Your task to perform on an android device: Search for a tv stand on Ikea Image 0: 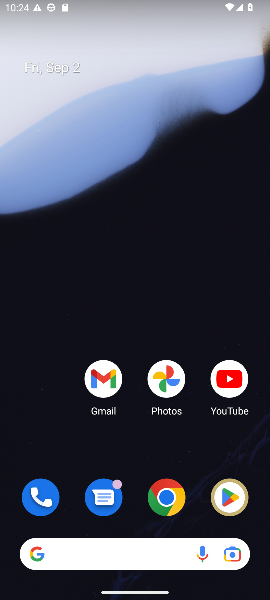
Step 0: click (155, 501)
Your task to perform on an android device: Search for a tv stand on Ikea Image 1: 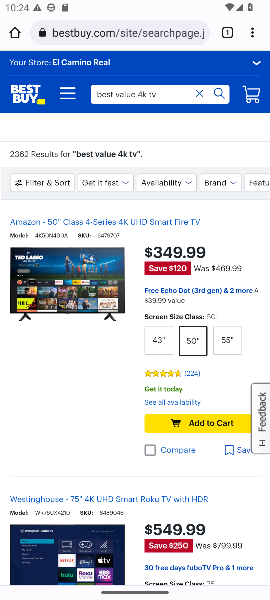
Step 1: click (143, 33)
Your task to perform on an android device: Search for a tv stand on Ikea Image 2: 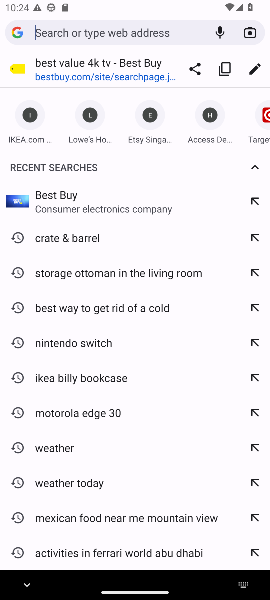
Step 2: type "ikea"
Your task to perform on an android device: Search for a tv stand on Ikea Image 3: 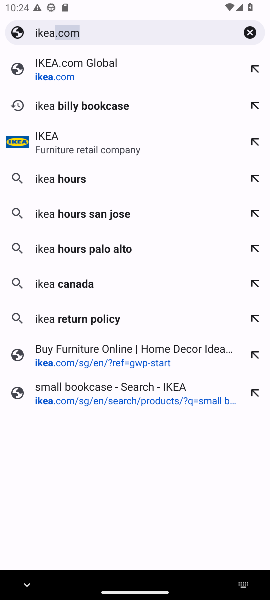
Step 3: click (247, 35)
Your task to perform on an android device: Search for a tv stand on Ikea Image 4: 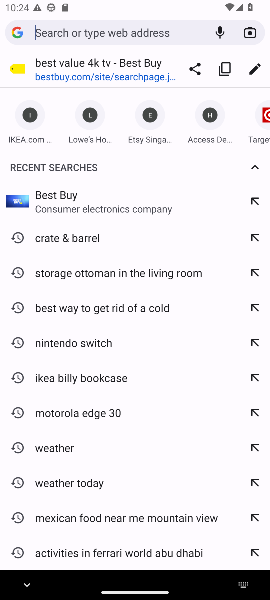
Step 4: type "tv stand on Ikea"
Your task to perform on an android device: Search for a tv stand on Ikea Image 5: 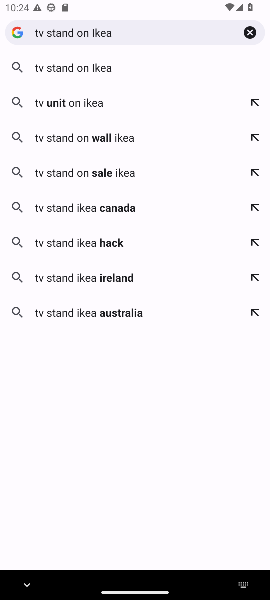
Step 5: type "\"
Your task to perform on an android device: Search for a tv stand on Ikea Image 6: 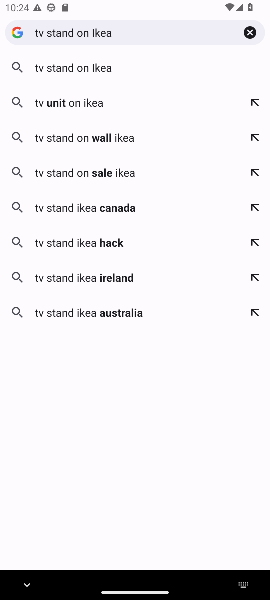
Step 6: click (93, 72)
Your task to perform on an android device: Search for a tv stand on Ikea Image 7: 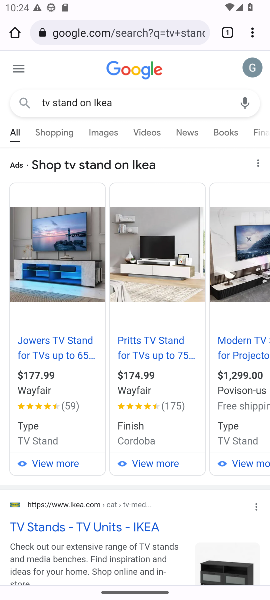
Step 7: click (132, 521)
Your task to perform on an android device: Search for a tv stand on Ikea Image 8: 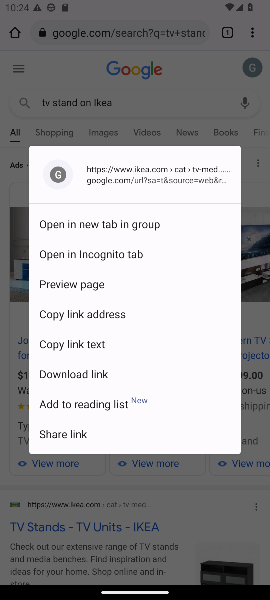
Step 8: click (107, 519)
Your task to perform on an android device: Search for a tv stand on Ikea Image 9: 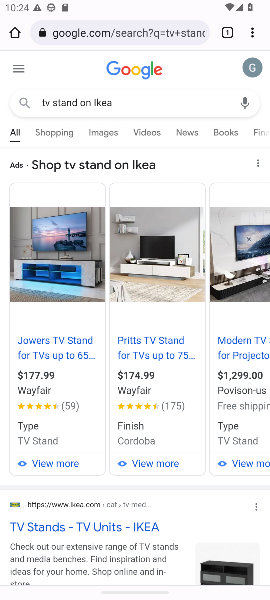
Step 9: click (107, 524)
Your task to perform on an android device: Search for a tv stand on Ikea Image 10: 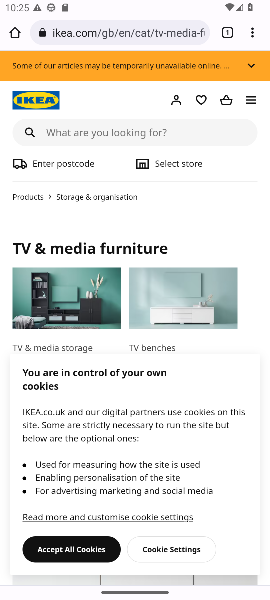
Step 10: task complete